Your task to perform on an android device: Open Reddit.com Image 0: 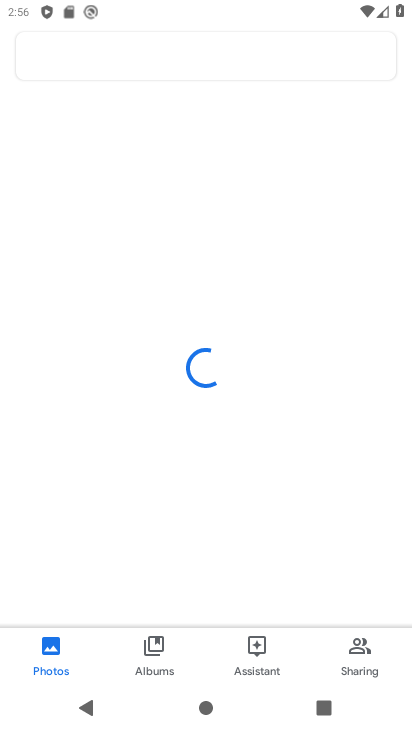
Step 0: press home button
Your task to perform on an android device: Open Reddit.com Image 1: 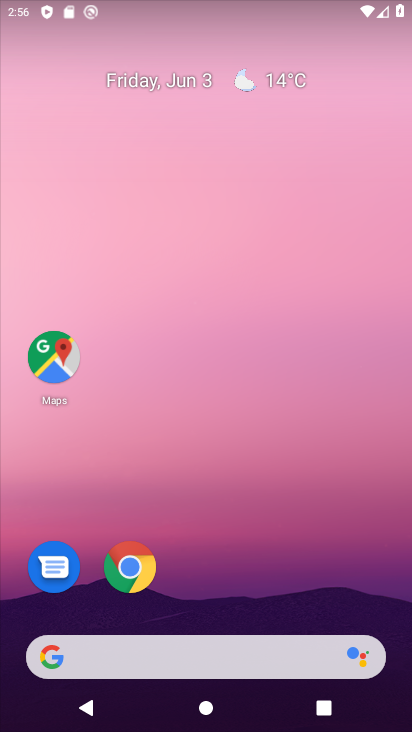
Step 1: click (142, 570)
Your task to perform on an android device: Open Reddit.com Image 2: 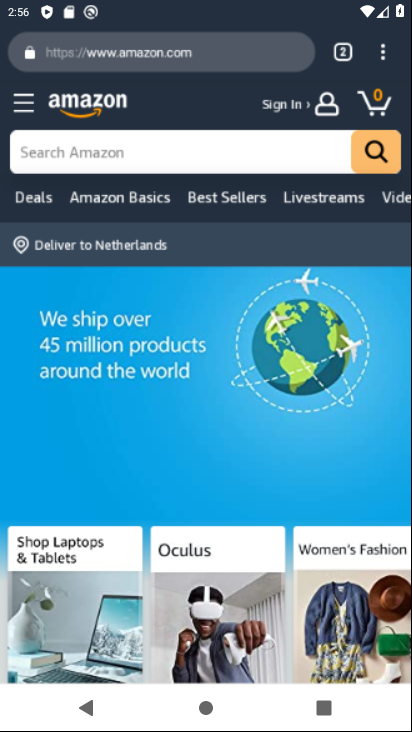
Step 2: click (142, 570)
Your task to perform on an android device: Open Reddit.com Image 3: 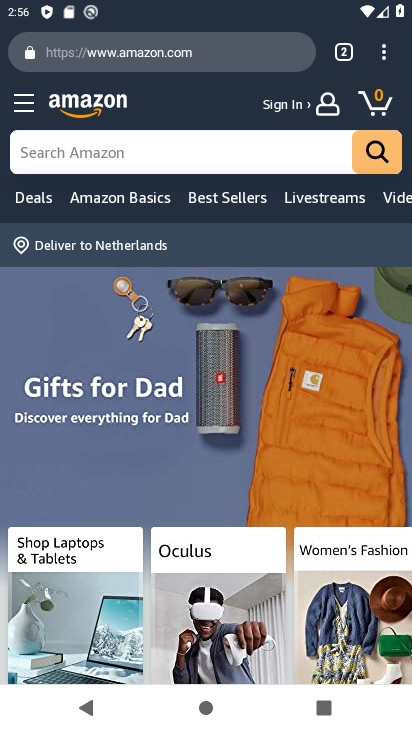
Step 3: click (139, 47)
Your task to perform on an android device: Open Reddit.com Image 4: 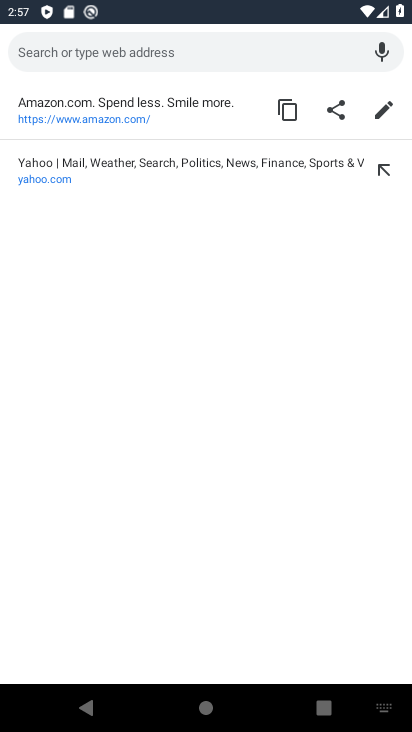
Step 4: type "Reddit.com"
Your task to perform on an android device: Open Reddit.com Image 5: 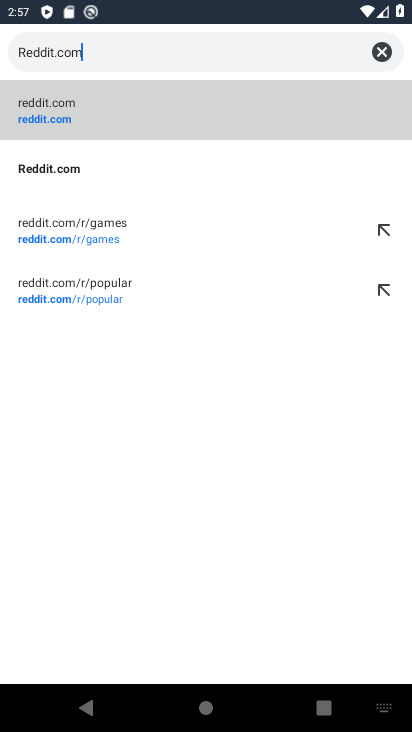
Step 5: click (125, 120)
Your task to perform on an android device: Open Reddit.com Image 6: 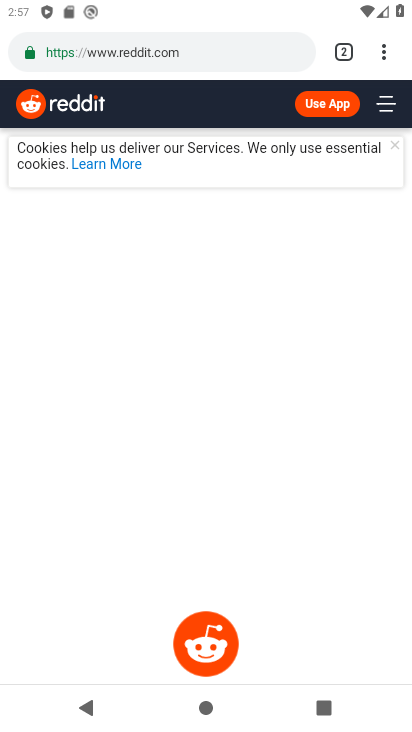
Step 6: task complete